Your task to perform on an android device: Open the Play Movies app and select the watchlist tab. Image 0: 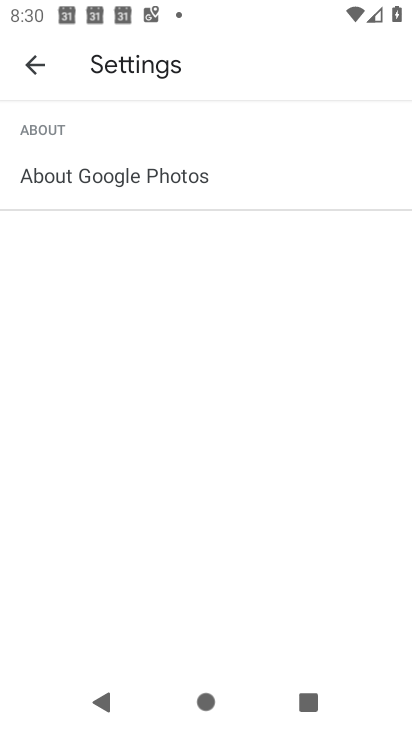
Step 0: press home button
Your task to perform on an android device: Open the Play Movies app and select the watchlist tab. Image 1: 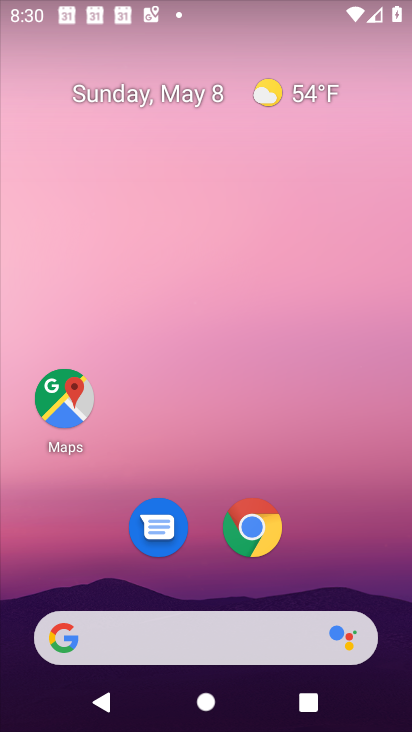
Step 1: drag from (341, 580) to (282, 25)
Your task to perform on an android device: Open the Play Movies app and select the watchlist tab. Image 2: 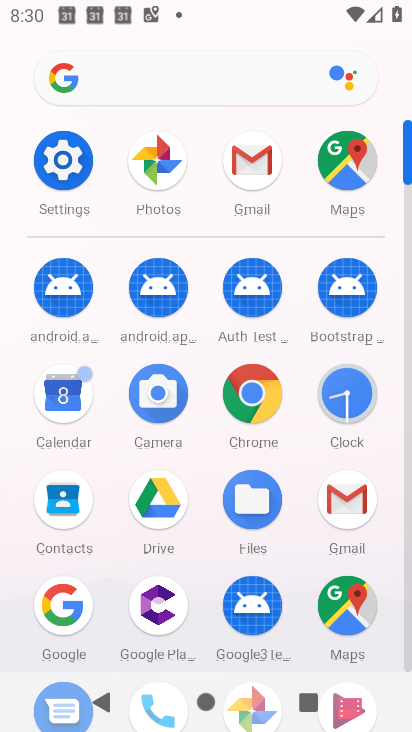
Step 2: drag from (299, 650) to (317, 431)
Your task to perform on an android device: Open the Play Movies app and select the watchlist tab. Image 3: 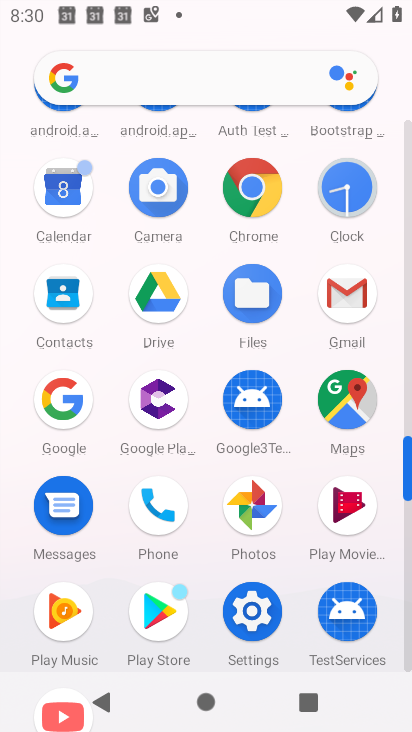
Step 3: click (346, 508)
Your task to perform on an android device: Open the Play Movies app and select the watchlist tab. Image 4: 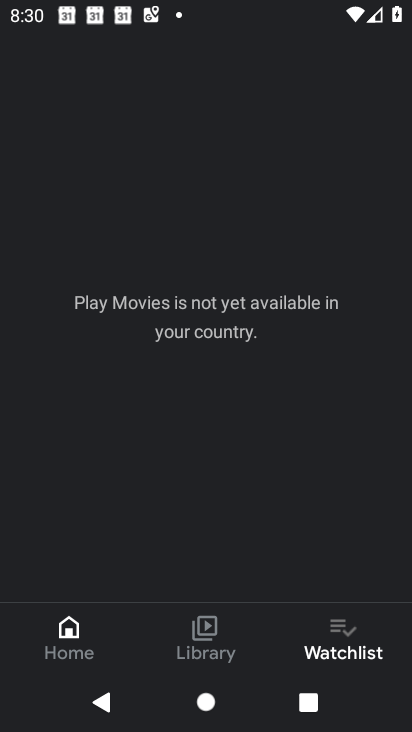
Step 4: click (357, 642)
Your task to perform on an android device: Open the Play Movies app and select the watchlist tab. Image 5: 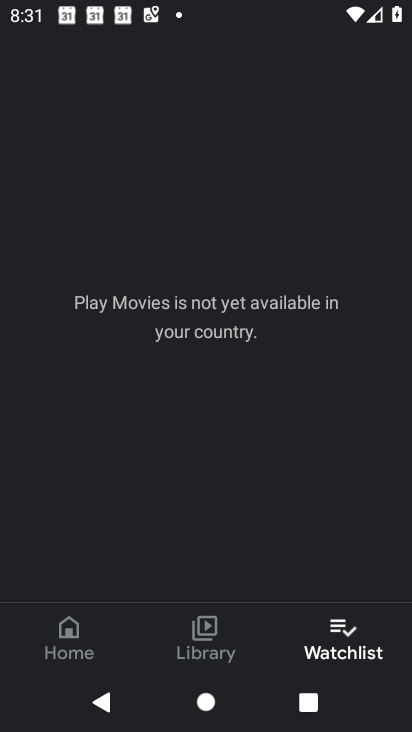
Step 5: task complete